Your task to perform on an android device: Open network settings Image 0: 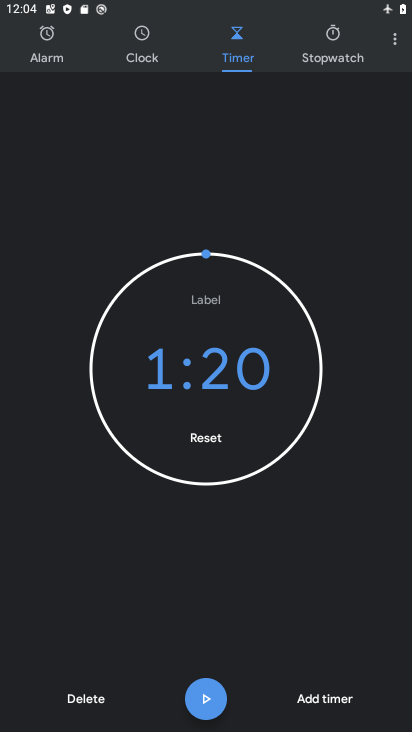
Step 0: press home button
Your task to perform on an android device: Open network settings Image 1: 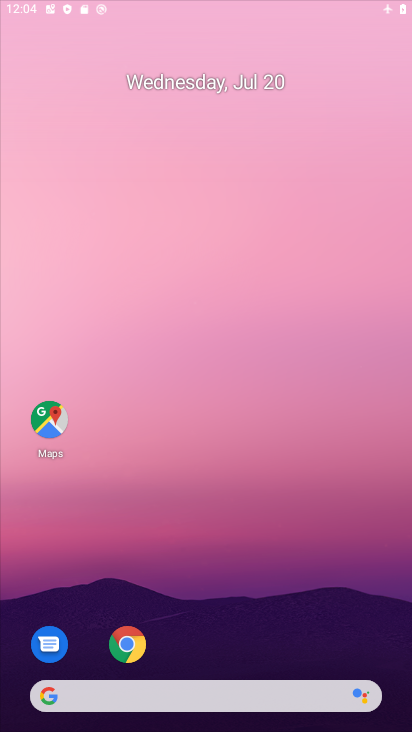
Step 1: drag from (273, 619) to (266, 115)
Your task to perform on an android device: Open network settings Image 2: 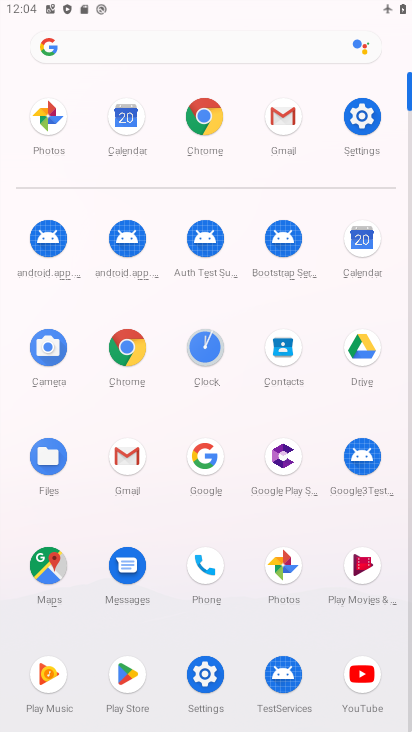
Step 2: click (341, 128)
Your task to perform on an android device: Open network settings Image 3: 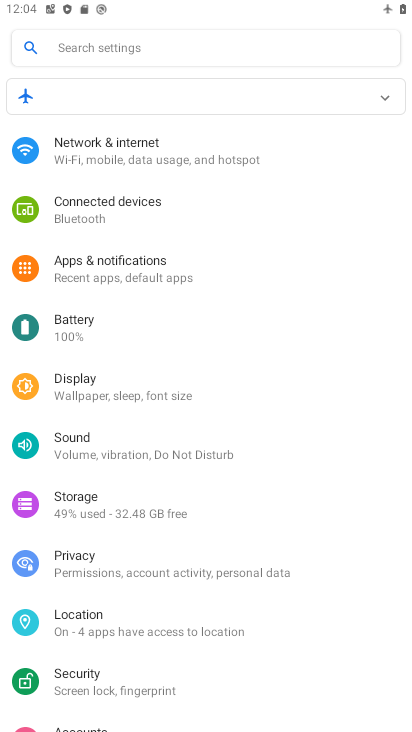
Step 3: click (120, 170)
Your task to perform on an android device: Open network settings Image 4: 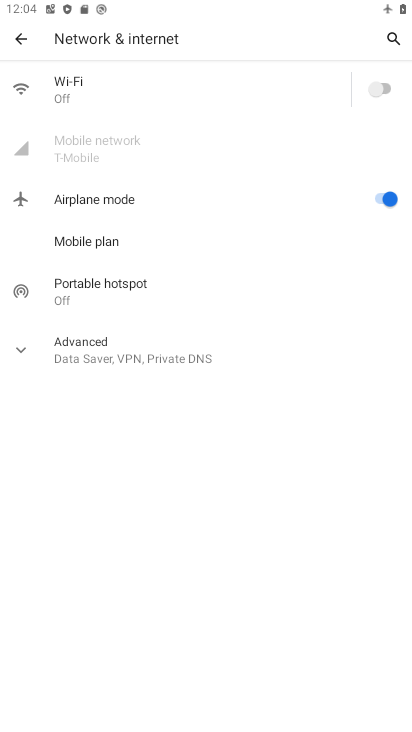
Step 4: task complete